Your task to perform on an android device: add a label to a message in the gmail app Image 0: 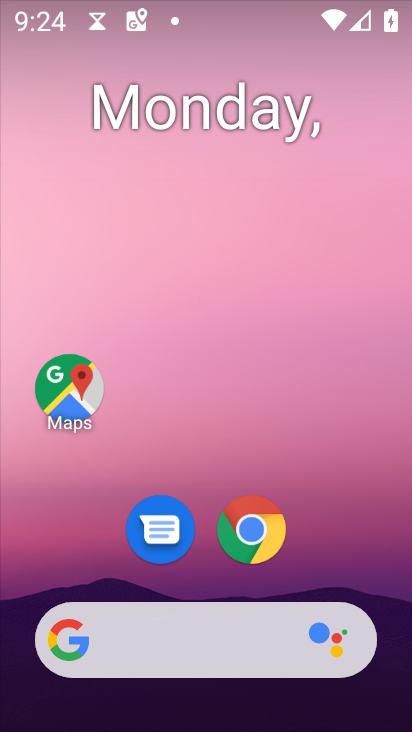
Step 0: drag from (306, 725) to (206, 150)
Your task to perform on an android device: add a label to a message in the gmail app Image 1: 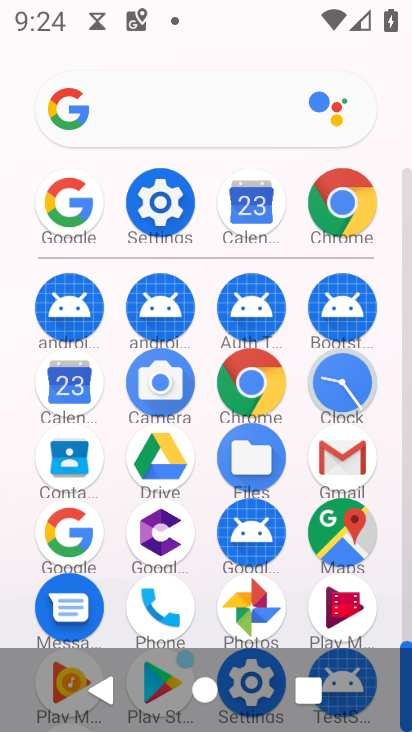
Step 1: click (356, 452)
Your task to perform on an android device: add a label to a message in the gmail app Image 2: 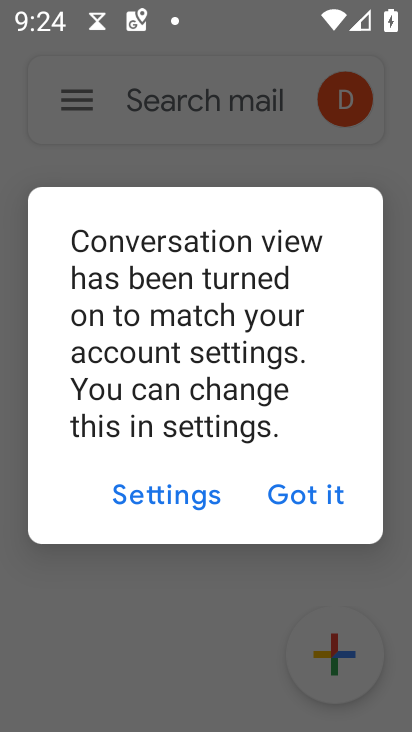
Step 2: click (297, 481)
Your task to perform on an android device: add a label to a message in the gmail app Image 3: 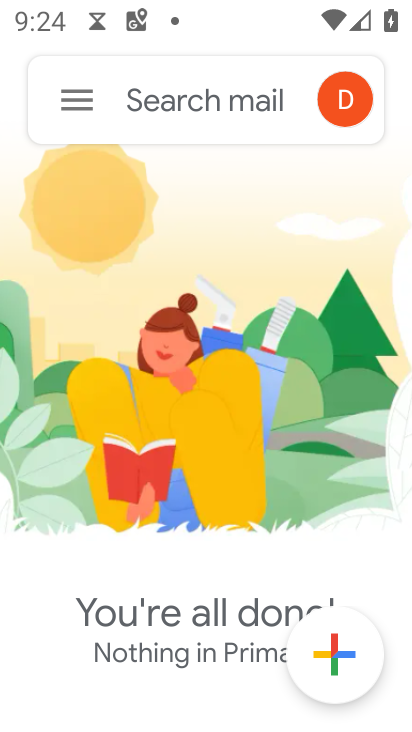
Step 3: click (79, 110)
Your task to perform on an android device: add a label to a message in the gmail app Image 4: 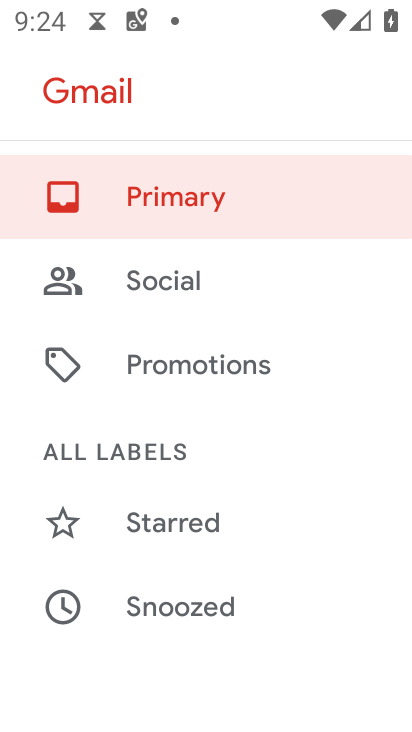
Step 4: drag from (197, 501) to (219, 203)
Your task to perform on an android device: add a label to a message in the gmail app Image 5: 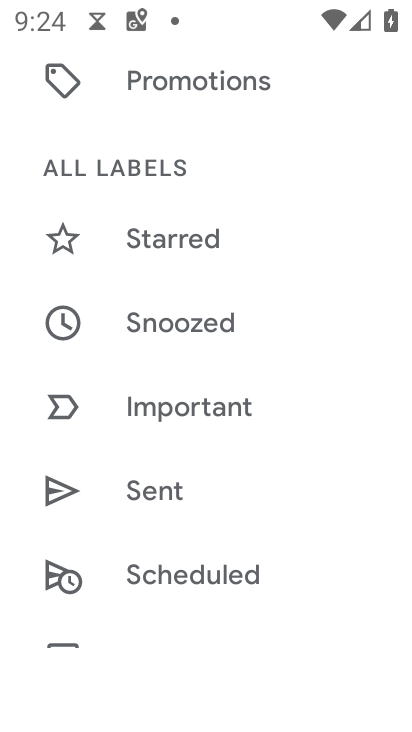
Step 5: drag from (224, 459) to (245, 292)
Your task to perform on an android device: add a label to a message in the gmail app Image 6: 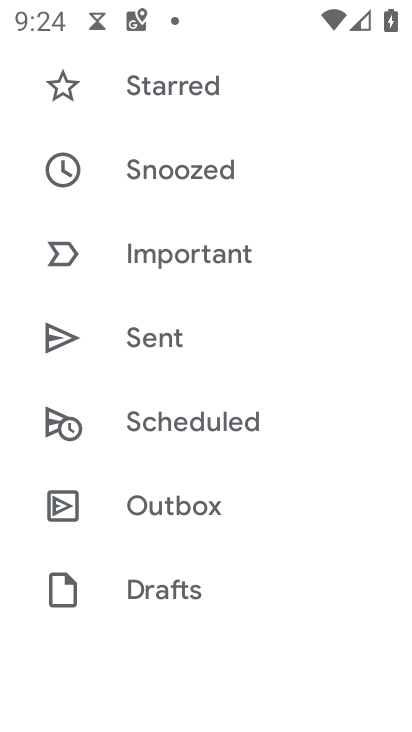
Step 6: drag from (191, 568) to (229, 267)
Your task to perform on an android device: add a label to a message in the gmail app Image 7: 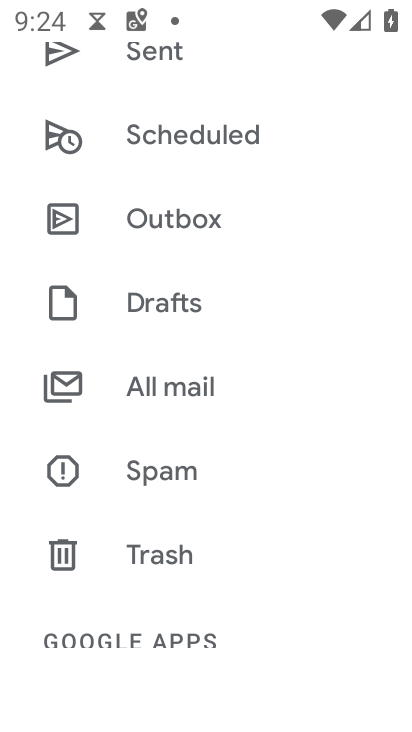
Step 7: click (159, 382)
Your task to perform on an android device: add a label to a message in the gmail app Image 8: 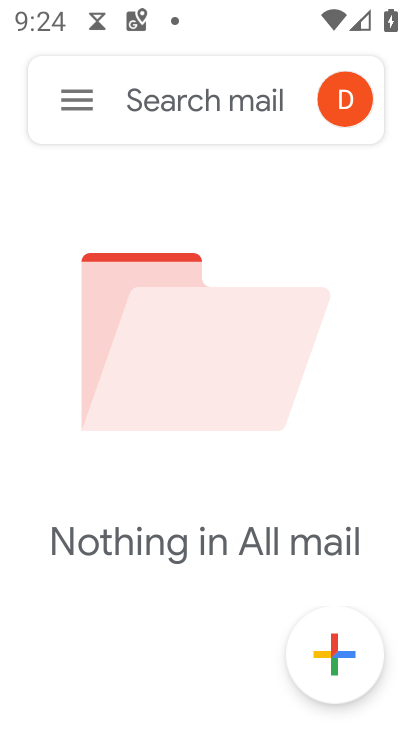
Step 8: task complete